Your task to perform on an android device: Open my contact list Image 0: 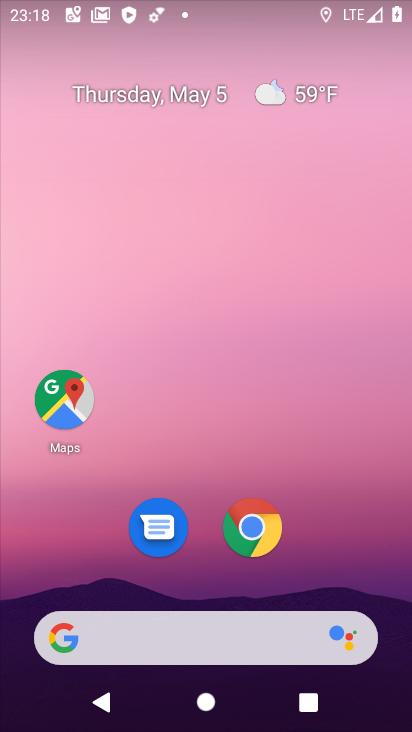
Step 0: drag from (209, 592) to (204, 0)
Your task to perform on an android device: Open my contact list Image 1: 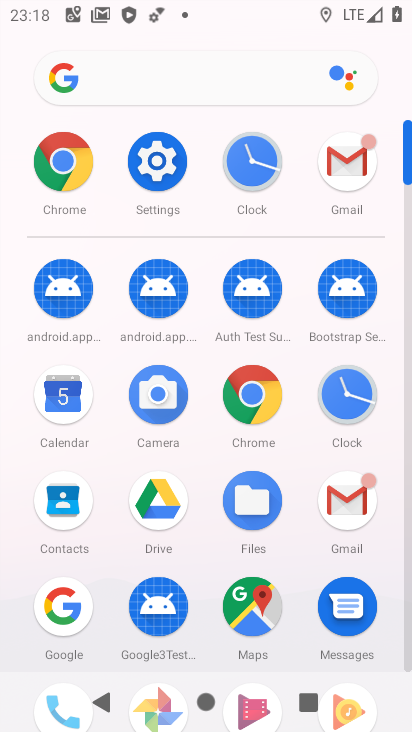
Step 1: click (63, 507)
Your task to perform on an android device: Open my contact list Image 2: 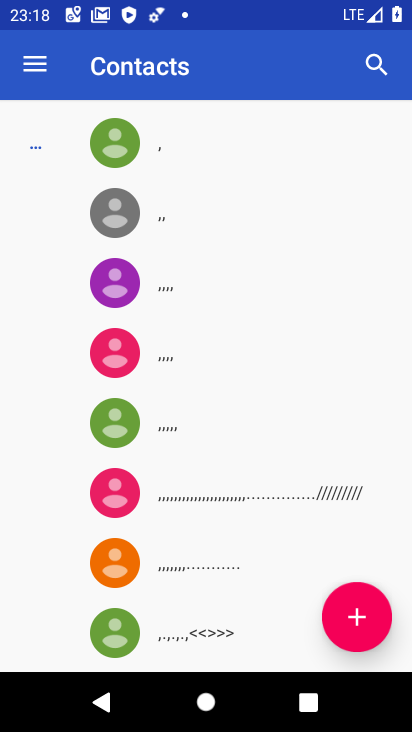
Step 2: task complete